Your task to perform on an android device: turn off javascript in the chrome app Image 0: 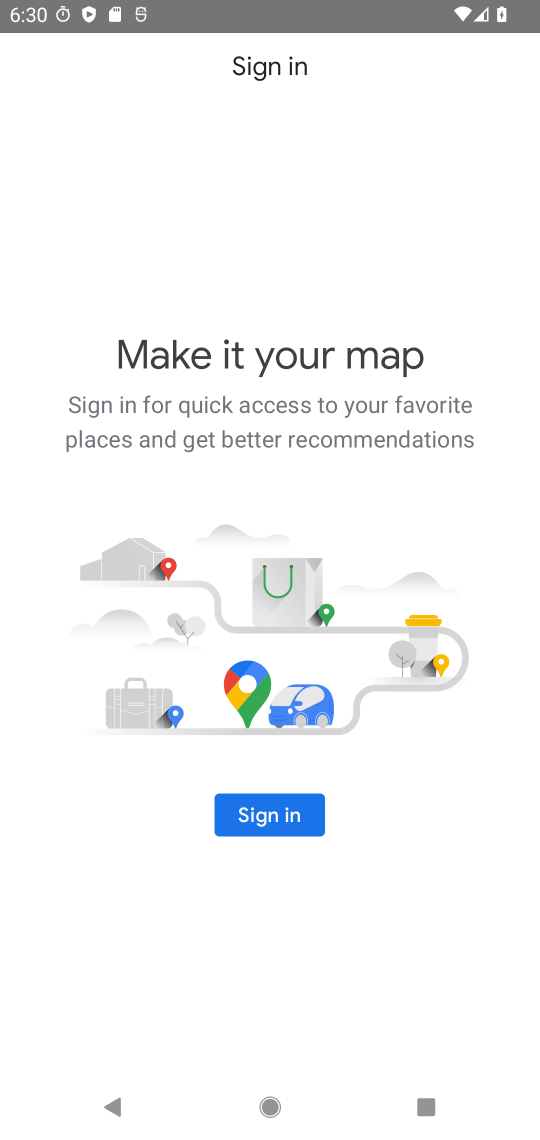
Step 0: press home button
Your task to perform on an android device: turn off javascript in the chrome app Image 1: 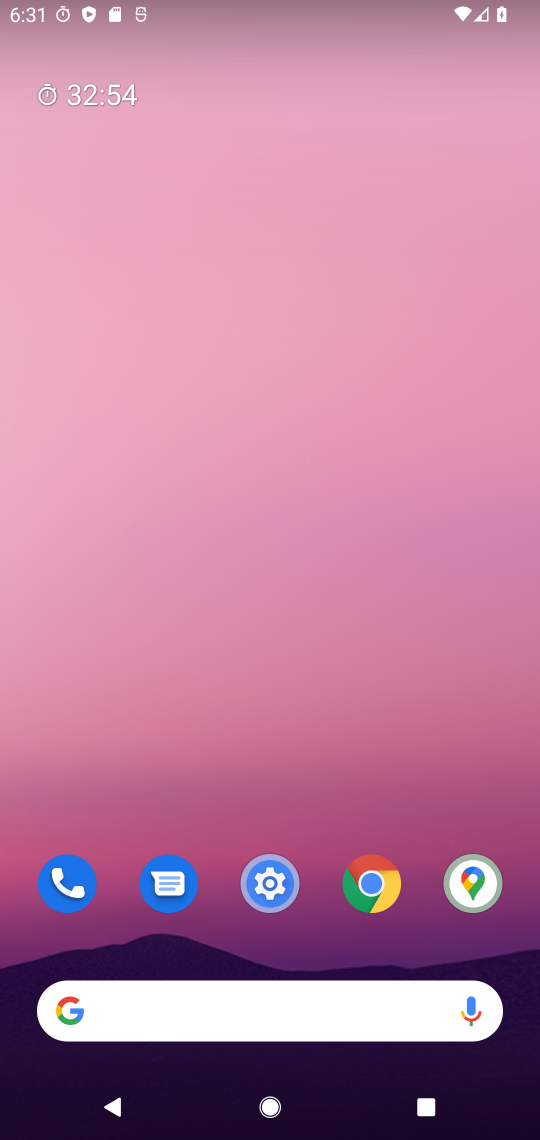
Step 1: click (367, 870)
Your task to perform on an android device: turn off javascript in the chrome app Image 2: 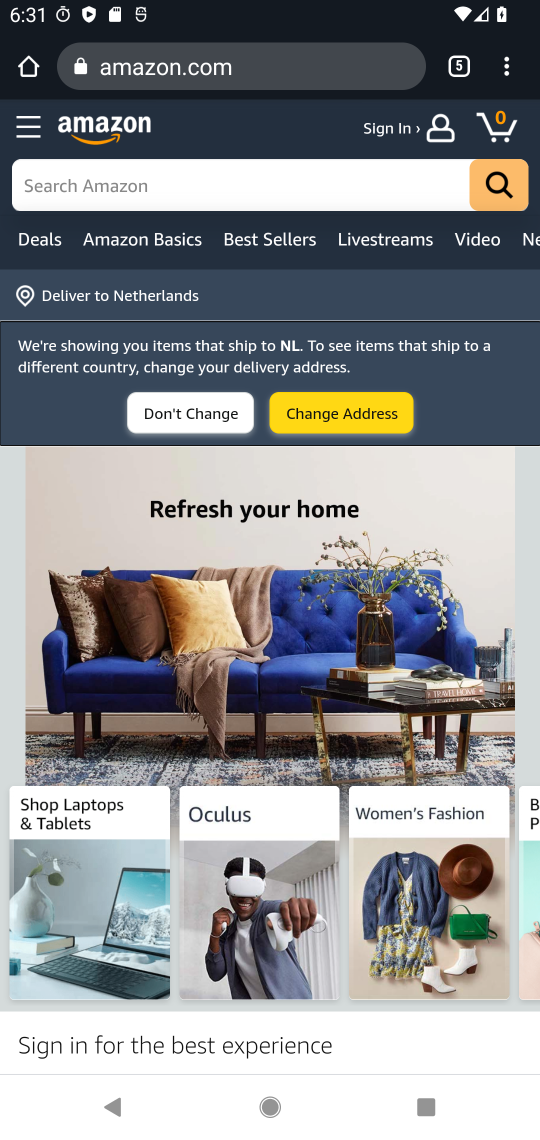
Step 2: click (504, 76)
Your task to perform on an android device: turn off javascript in the chrome app Image 3: 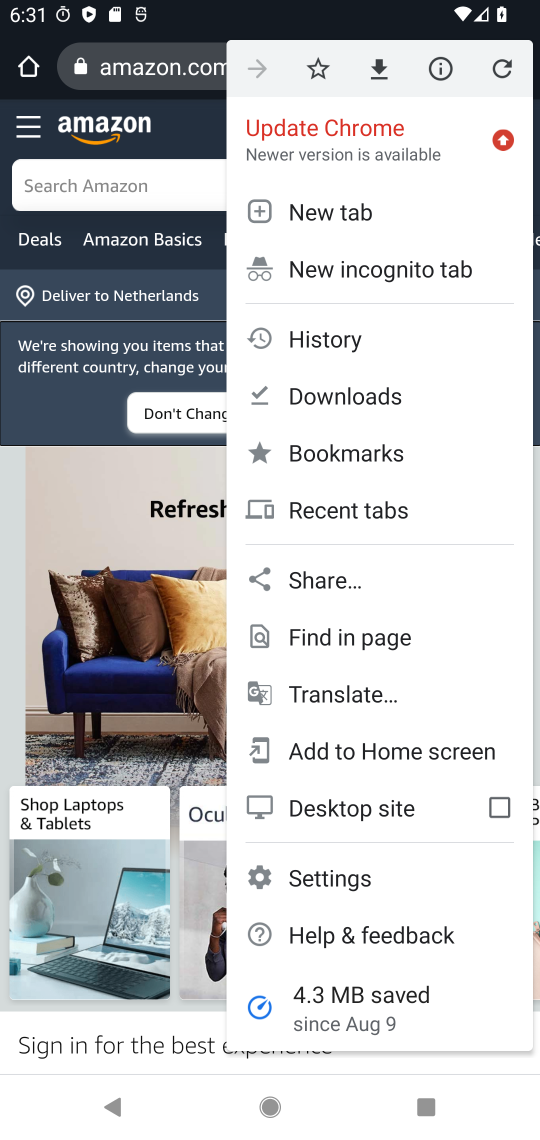
Step 3: click (344, 866)
Your task to perform on an android device: turn off javascript in the chrome app Image 4: 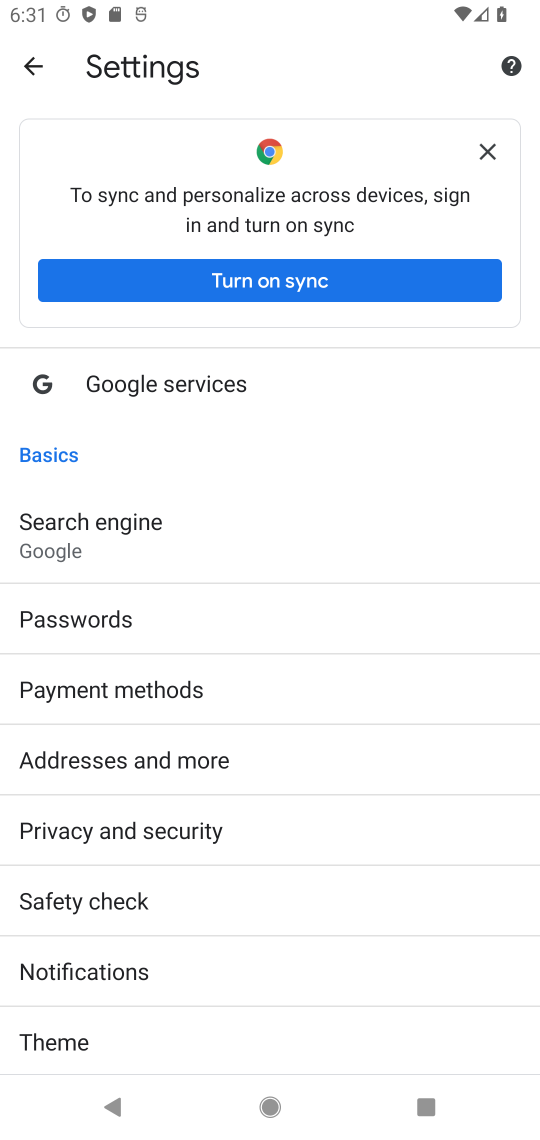
Step 4: drag from (250, 846) to (250, 408)
Your task to perform on an android device: turn off javascript in the chrome app Image 5: 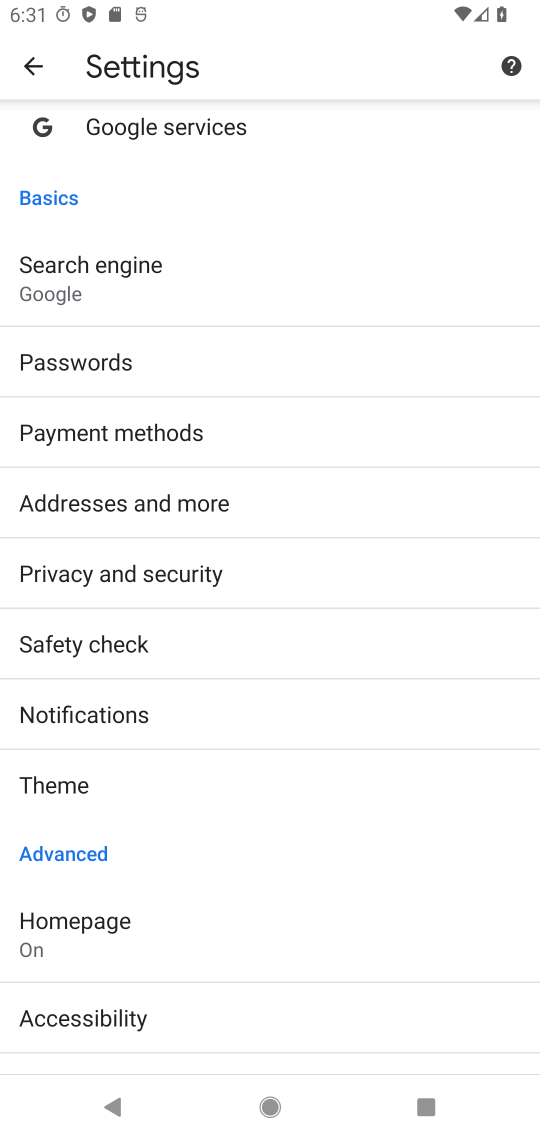
Step 5: drag from (202, 868) to (275, 343)
Your task to perform on an android device: turn off javascript in the chrome app Image 6: 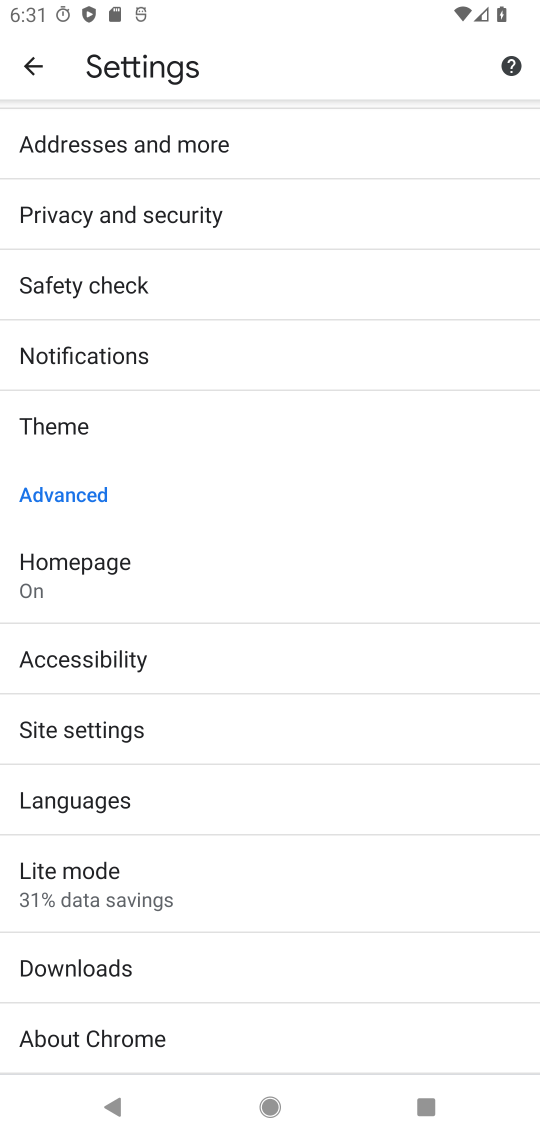
Step 6: click (131, 736)
Your task to perform on an android device: turn off javascript in the chrome app Image 7: 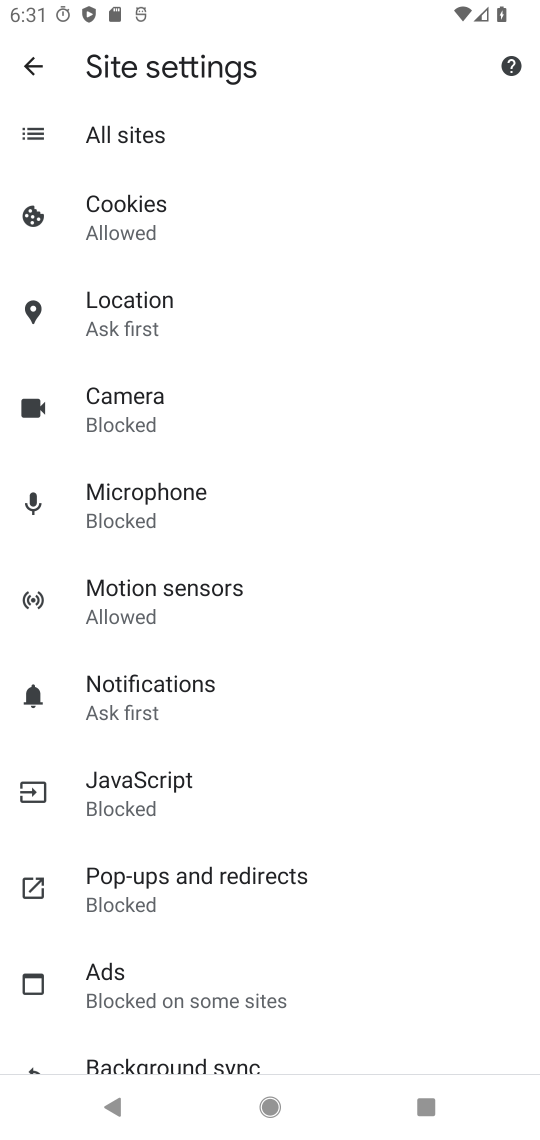
Step 7: click (205, 790)
Your task to perform on an android device: turn off javascript in the chrome app Image 8: 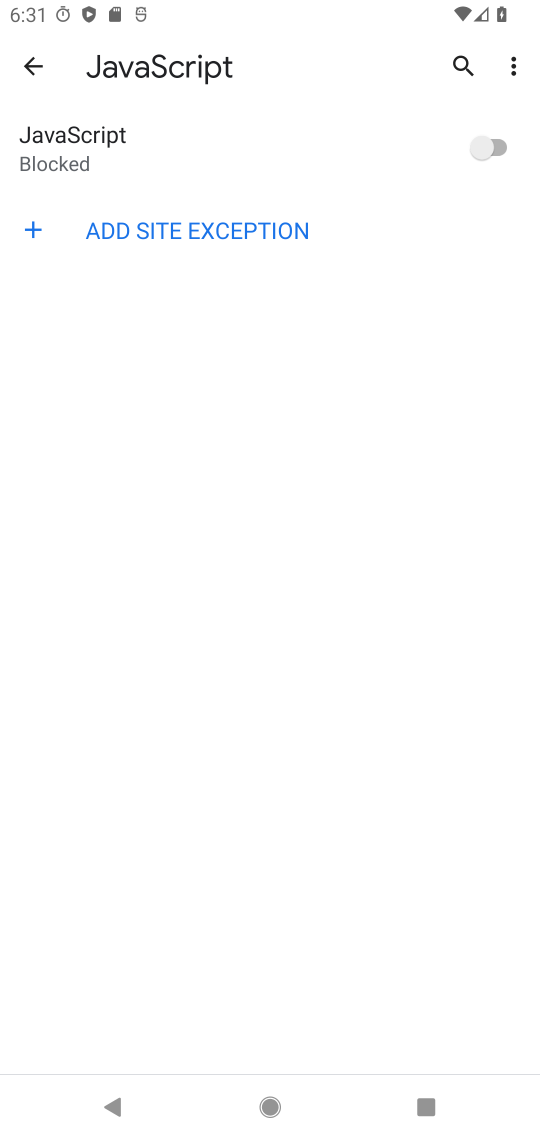
Step 8: task complete